Your task to perform on an android device: Open display settings Image 0: 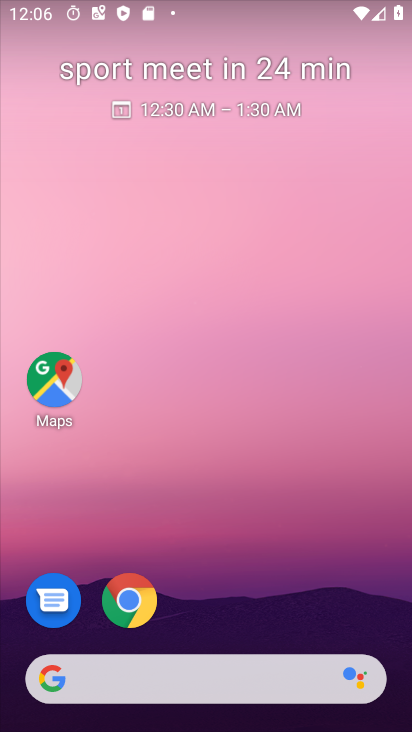
Step 0: drag from (198, 635) to (238, 20)
Your task to perform on an android device: Open display settings Image 1: 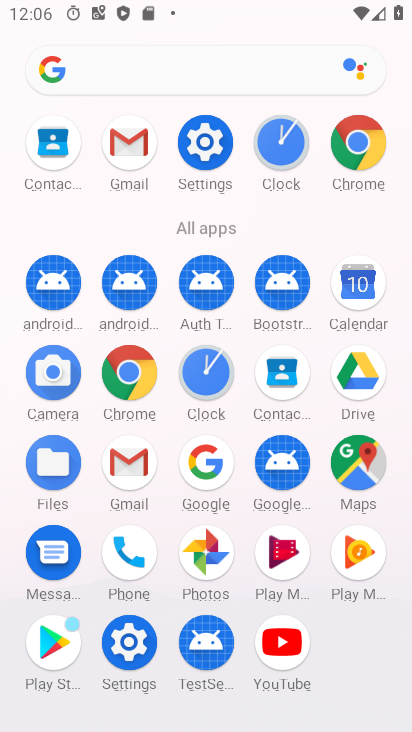
Step 1: click (201, 140)
Your task to perform on an android device: Open display settings Image 2: 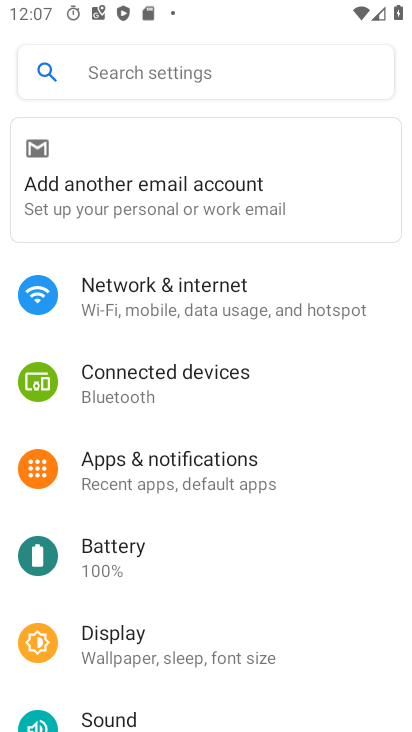
Step 2: click (128, 666)
Your task to perform on an android device: Open display settings Image 3: 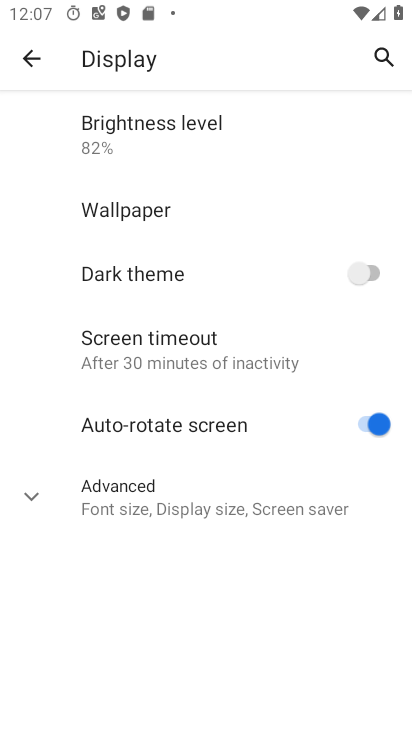
Step 3: task complete